Your task to perform on an android device: snooze an email in the gmail app Image 0: 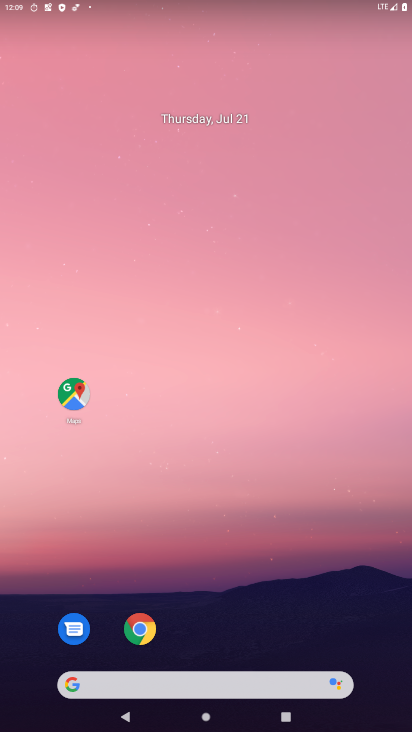
Step 0: drag from (199, 652) to (249, 9)
Your task to perform on an android device: snooze an email in the gmail app Image 1: 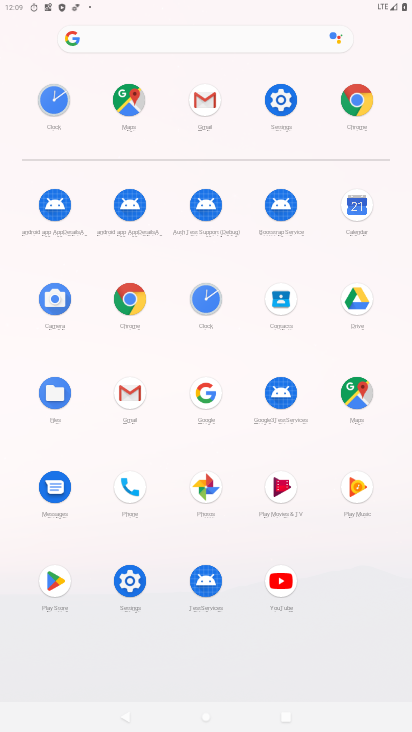
Step 1: click (130, 391)
Your task to perform on an android device: snooze an email in the gmail app Image 2: 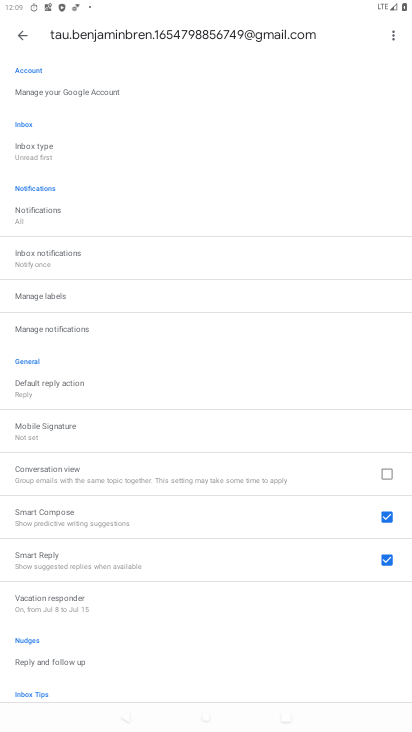
Step 2: press back button
Your task to perform on an android device: snooze an email in the gmail app Image 3: 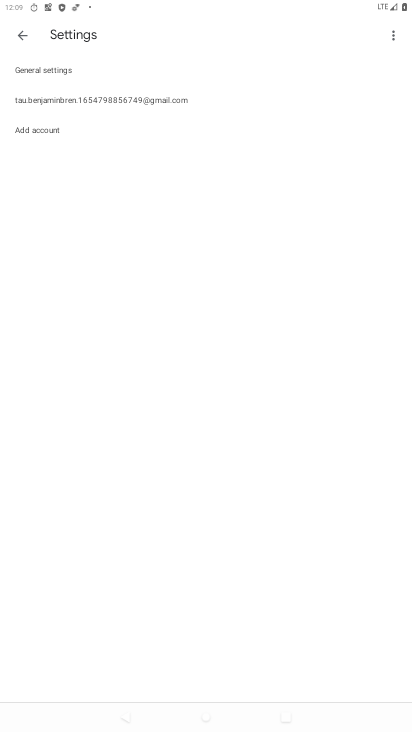
Step 3: press back button
Your task to perform on an android device: snooze an email in the gmail app Image 4: 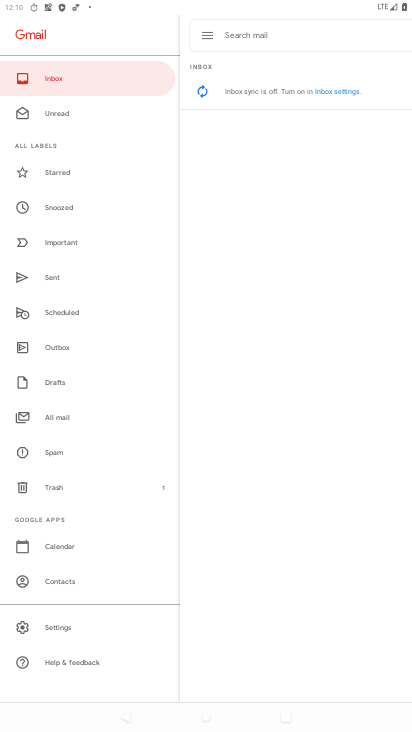
Step 4: click (67, 207)
Your task to perform on an android device: snooze an email in the gmail app Image 5: 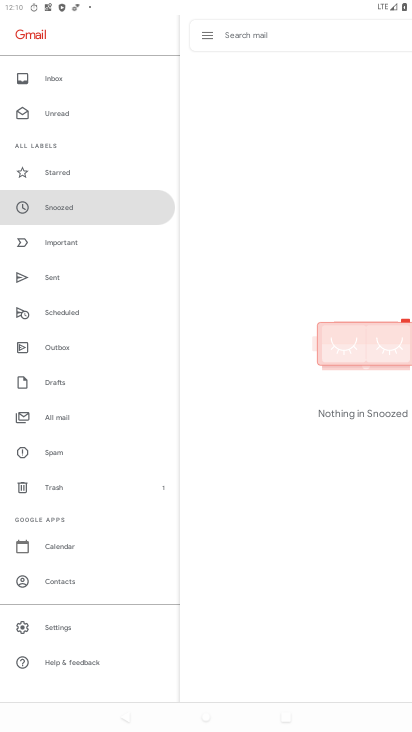
Step 5: task complete